Your task to perform on an android device: turn off airplane mode Image 0: 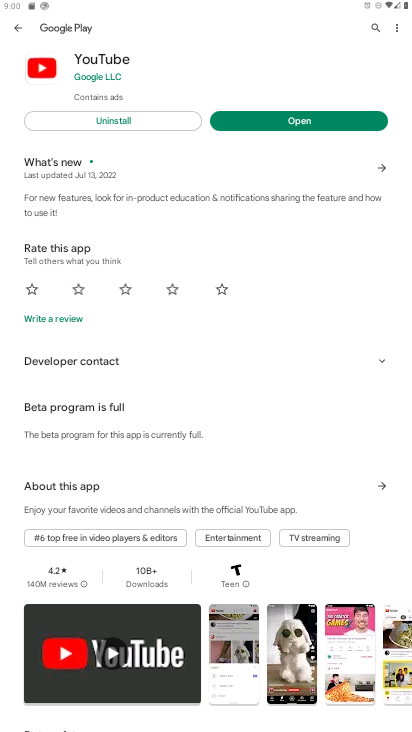
Step 0: press home button
Your task to perform on an android device: turn off airplane mode Image 1: 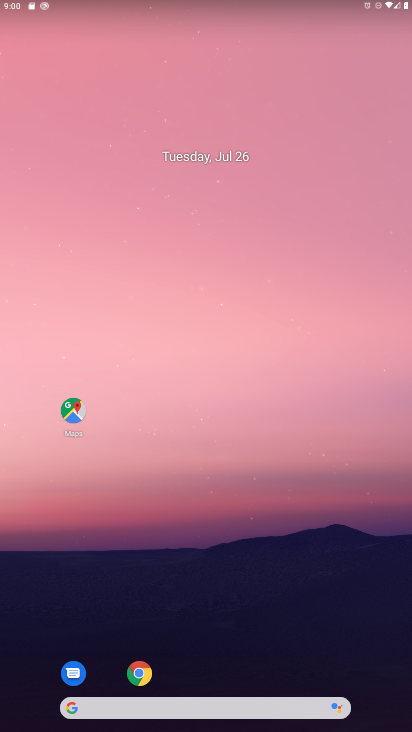
Step 1: task complete